Your task to perform on an android device: Turn on the flashlight Image 0: 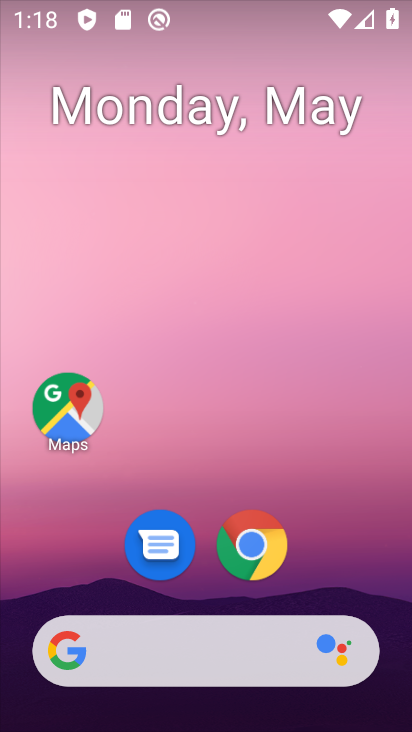
Step 0: drag from (194, 504) to (185, 28)
Your task to perform on an android device: Turn on the flashlight Image 1: 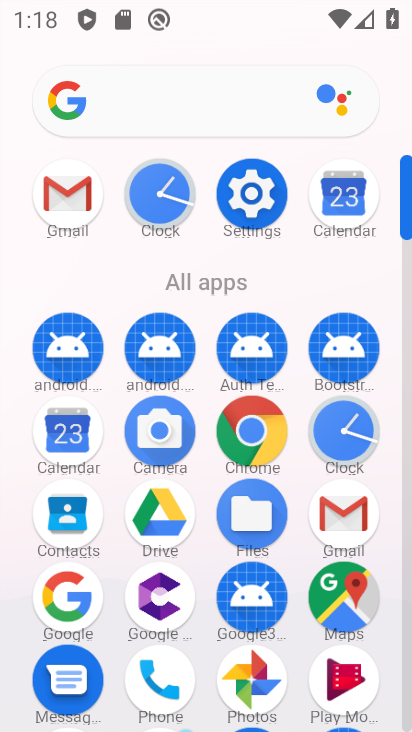
Step 1: task complete